Your task to perform on an android device: snooze an email in the gmail app Image 0: 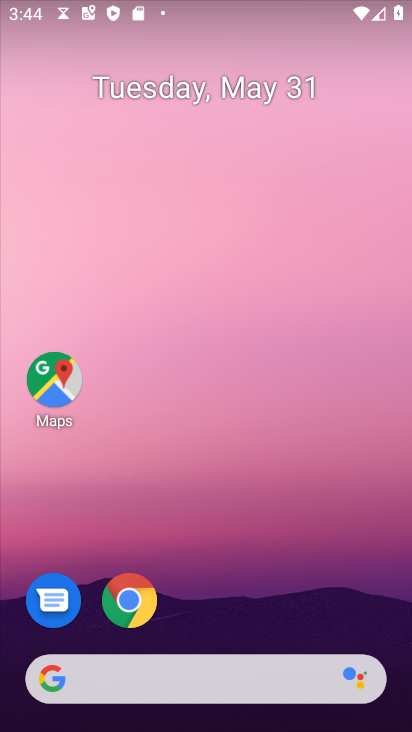
Step 0: drag from (218, 638) to (264, 11)
Your task to perform on an android device: snooze an email in the gmail app Image 1: 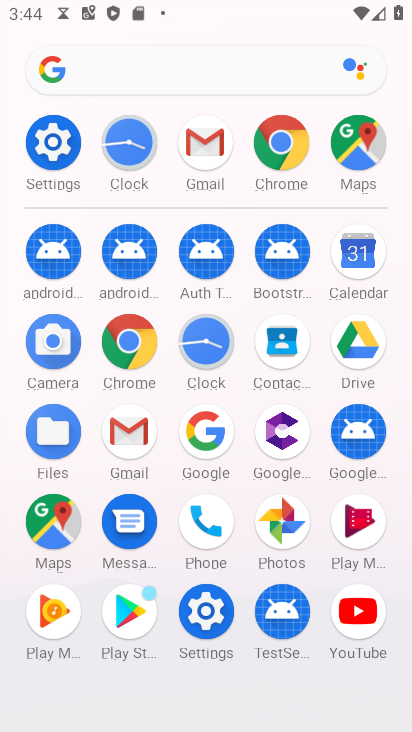
Step 1: click (264, 3)
Your task to perform on an android device: snooze an email in the gmail app Image 2: 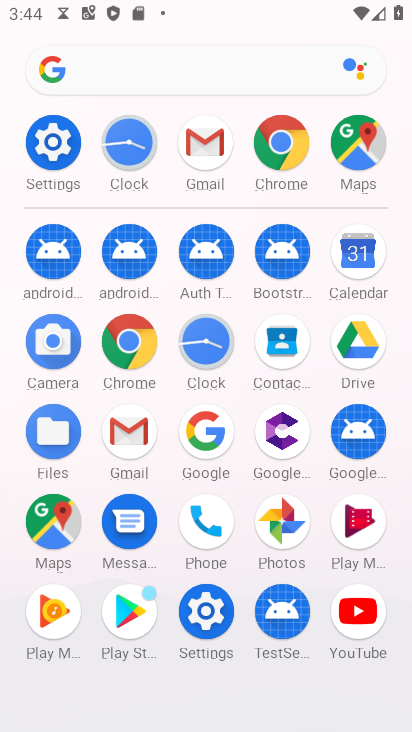
Step 2: click (120, 424)
Your task to perform on an android device: snooze an email in the gmail app Image 3: 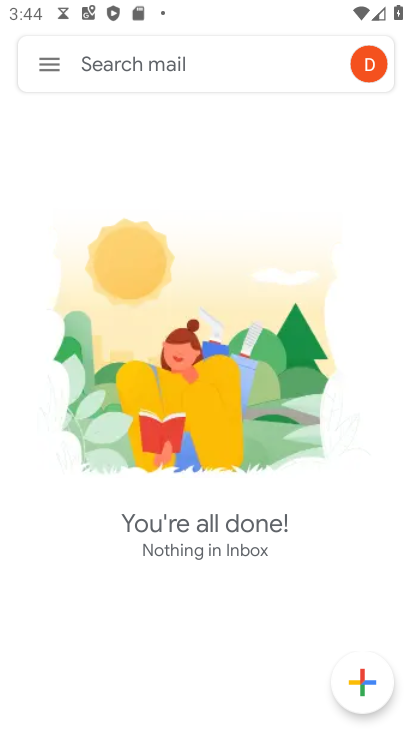
Step 3: task complete